Your task to perform on an android device: see creations saved in the google photos Image 0: 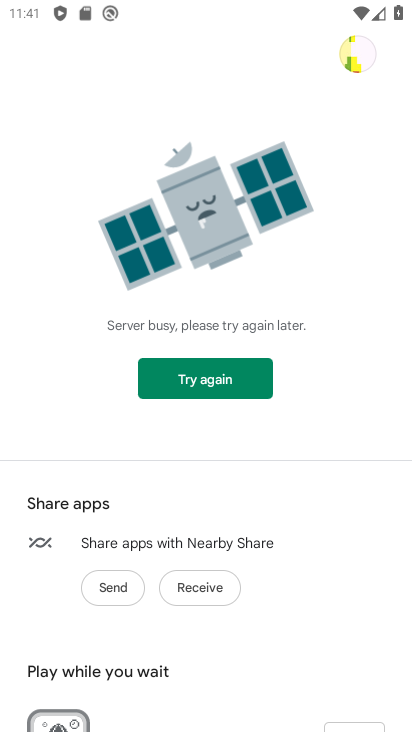
Step 0: press home button
Your task to perform on an android device: see creations saved in the google photos Image 1: 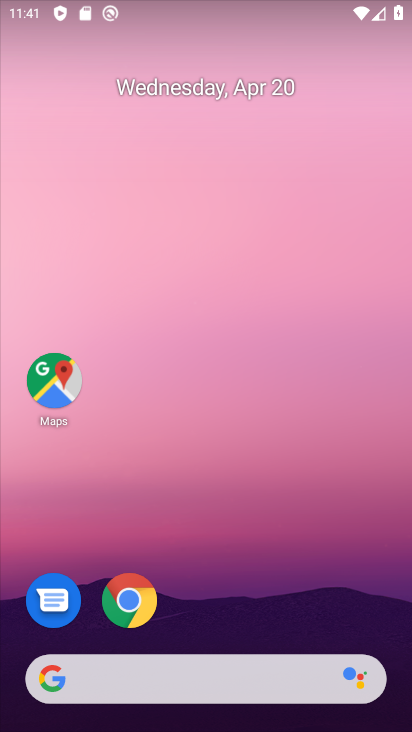
Step 1: drag from (195, 547) to (260, 43)
Your task to perform on an android device: see creations saved in the google photos Image 2: 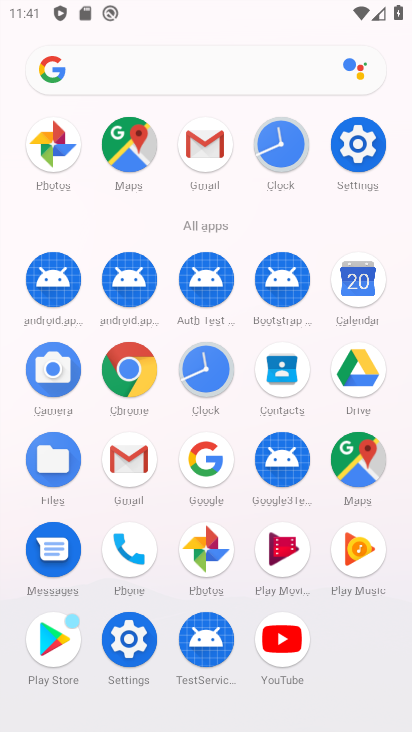
Step 2: click (57, 130)
Your task to perform on an android device: see creations saved in the google photos Image 3: 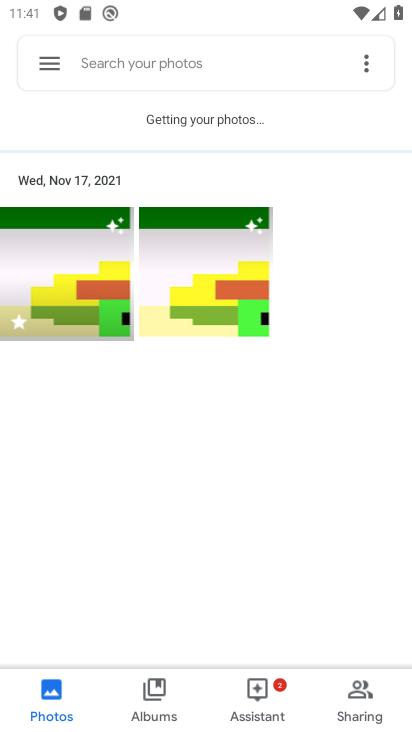
Step 3: click (105, 56)
Your task to perform on an android device: see creations saved in the google photos Image 4: 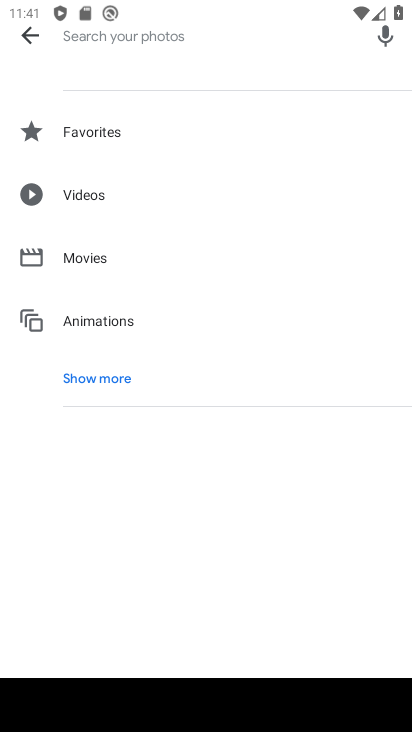
Step 4: click (108, 375)
Your task to perform on an android device: see creations saved in the google photos Image 5: 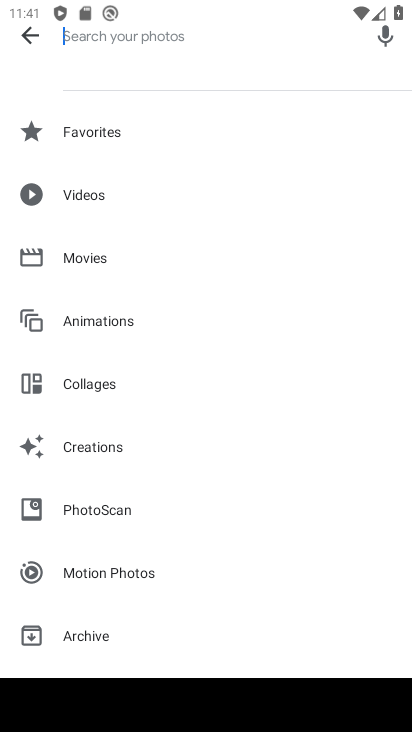
Step 5: click (101, 433)
Your task to perform on an android device: see creations saved in the google photos Image 6: 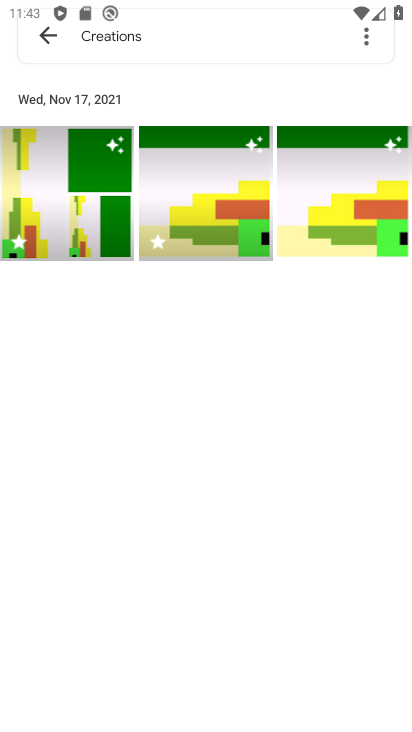
Step 6: task complete